Your task to perform on an android device: Search for the best books on Goodreads. Image 0: 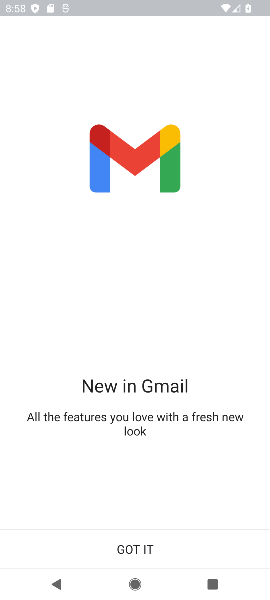
Step 0: press home button
Your task to perform on an android device: Search for the best books on Goodreads. Image 1: 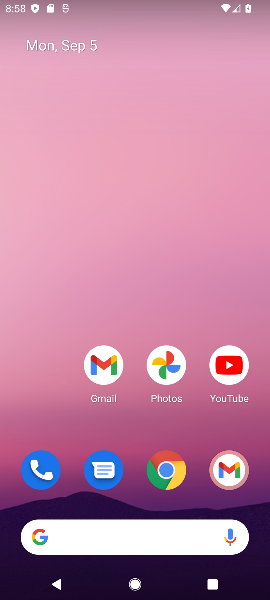
Step 1: click (146, 526)
Your task to perform on an android device: Search for the best books on Goodreads. Image 2: 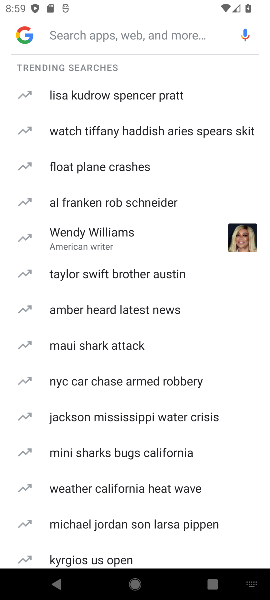
Step 2: type "goodreads"
Your task to perform on an android device: Search for the best books on Goodreads. Image 3: 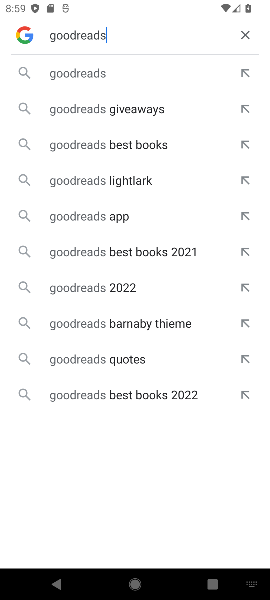
Step 3: click (107, 70)
Your task to perform on an android device: Search for the best books on Goodreads. Image 4: 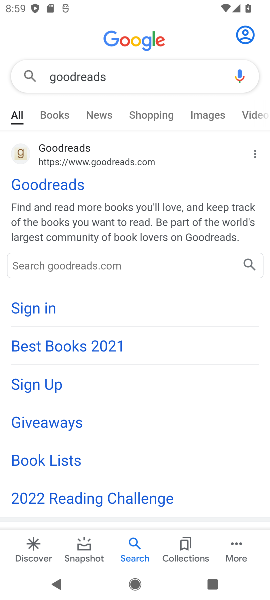
Step 4: click (53, 182)
Your task to perform on an android device: Search for the best books on Goodreads. Image 5: 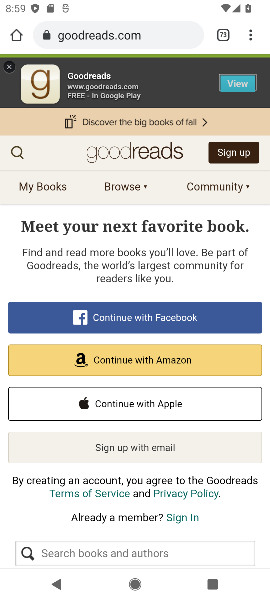
Step 5: click (16, 148)
Your task to perform on an android device: Search for the best books on Goodreads. Image 6: 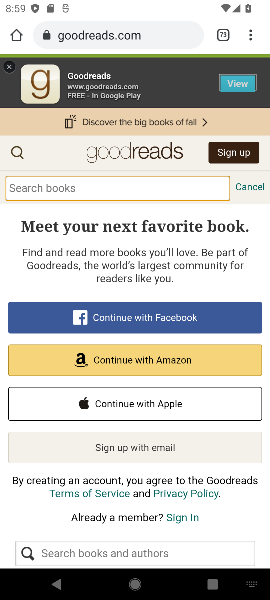
Step 6: type "best books"
Your task to perform on an android device: Search for the best books on Goodreads. Image 7: 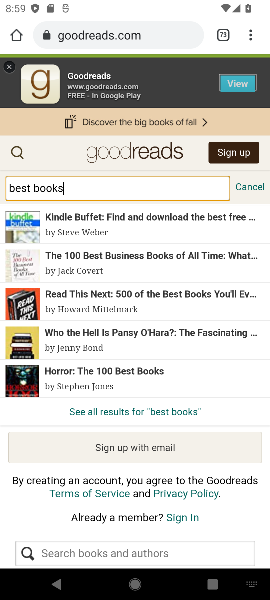
Step 7: click (140, 412)
Your task to perform on an android device: Search for the best books on Goodreads. Image 8: 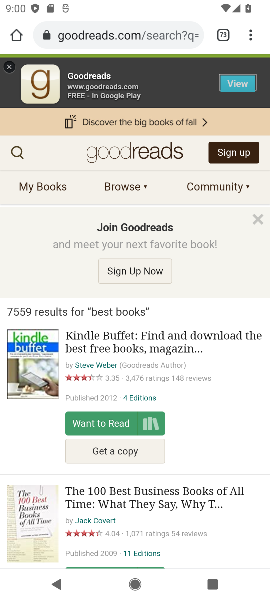
Step 8: task complete